Your task to perform on an android device: open app "Move to iOS" Image 0: 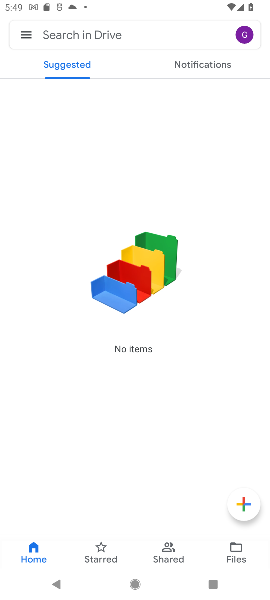
Step 0: press home button
Your task to perform on an android device: open app "Move to iOS" Image 1: 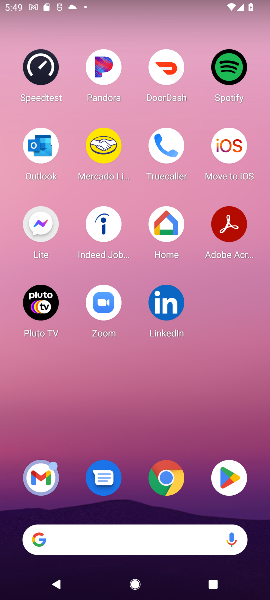
Step 1: click (242, 467)
Your task to perform on an android device: open app "Move to iOS" Image 2: 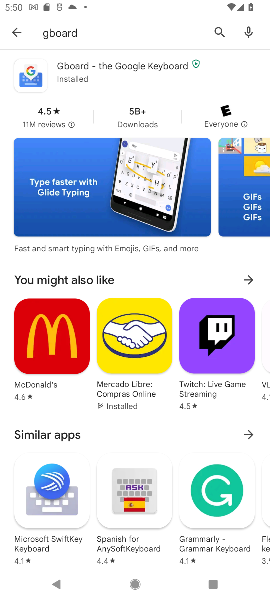
Step 2: click (217, 28)
Your task to perform on an android device: open app "Move to iOS" Image 3: 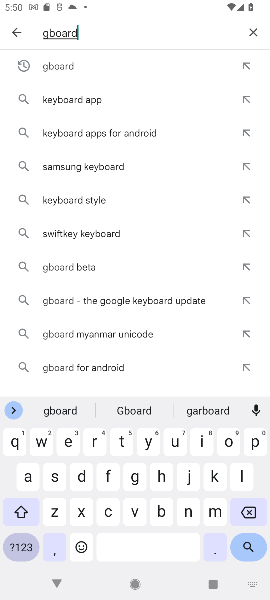
Step 3: click (254, 30)
Your task to perform on an android device: open app "Move to iOS" Image 4: 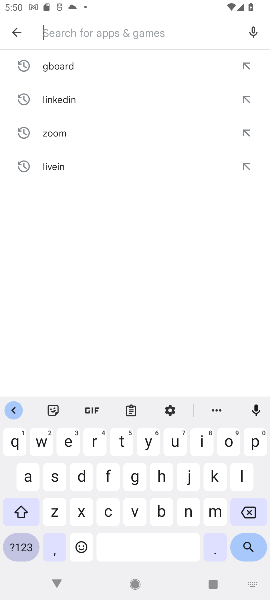
Step 4: click (216, 515)
Your task to perform on an android device: open app "Move to iOS" Image 5: 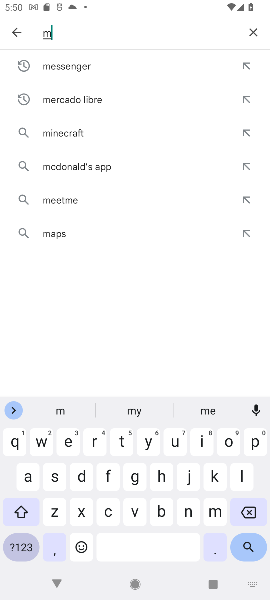
Step 5: click (225, 440)
Your task to perform on an android device: open app "Move to iOS" Image 6: 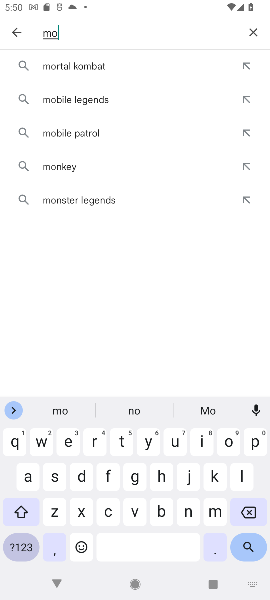
Step 6: click (132, 512)
Your task to perform on an android device: open app "Move to iOS" Image 7: 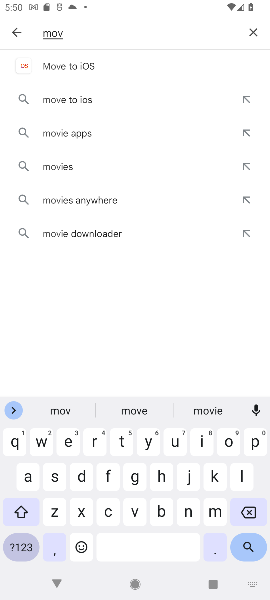
Step 7: click (77, 63)
Your task to perform on an android device: open app "Move to iOS" Image 8: 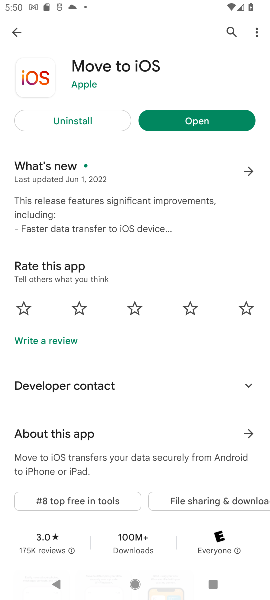
Step 8: click (196, 123)
Your task to perform on an android device: open app "Move to iOS" Image 9: 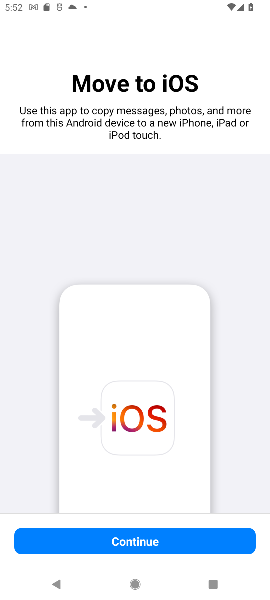
Step 9: task complete